Your task to perform on an android device: turn off location Image 0: 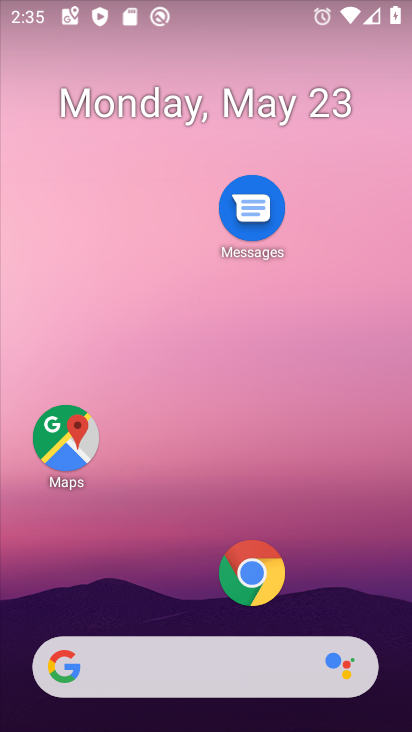
Step 0: drag from (248, 669) to (371, 6)
Your task to perform on an android device: turn off location Image 1: 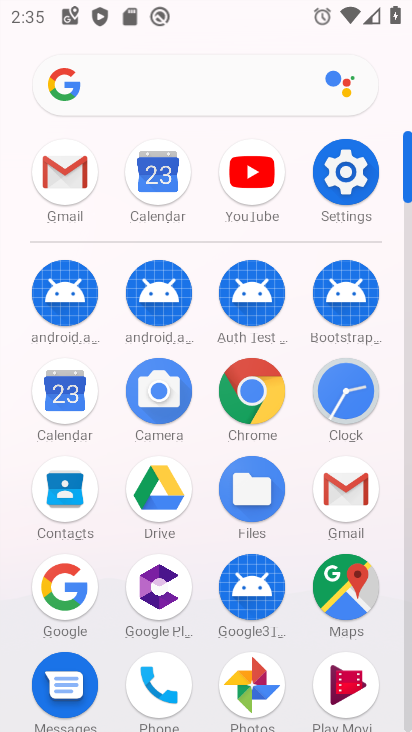
Step 1: click (375, 141)
Your task to perform on an android device: turn off location Image 2: 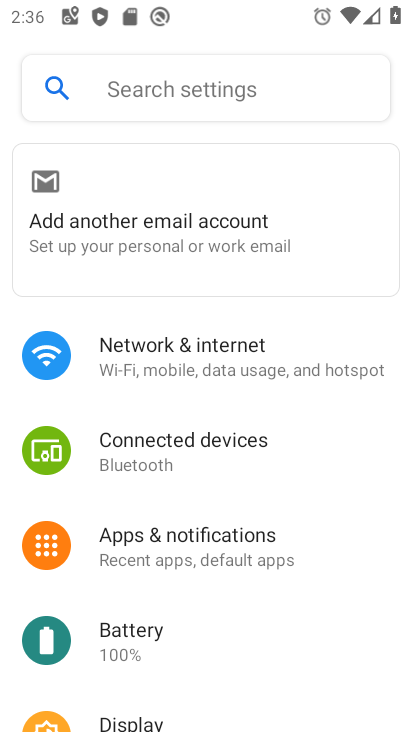
Step 2: drag from (243, 628) to (272, 10)
Your task to perform on an android device: turn off location Image 3: 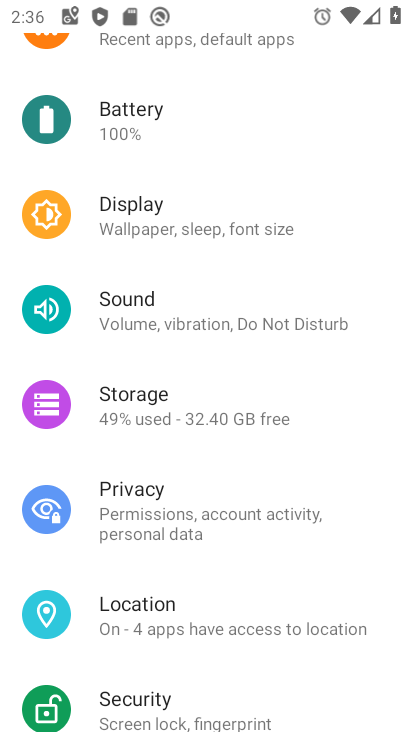
Step 3: drag from (203, 696) to (197, 118)
Your task to perform on an android device: turn off location Image 4: 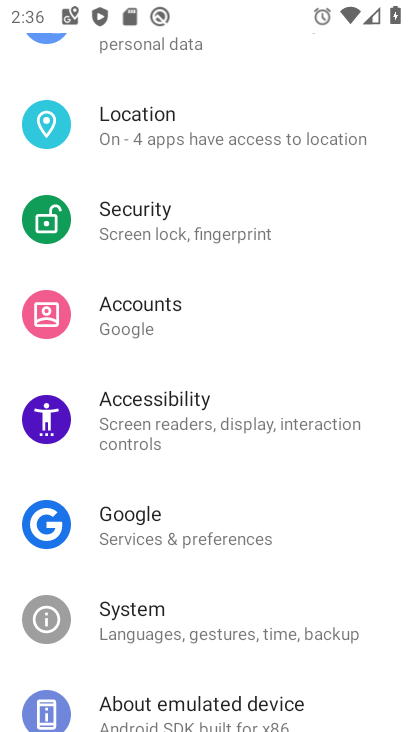
Step 4: drag from (260, 625) to (278, 161)
Your task to perform on an android device: turn off location Image 5: 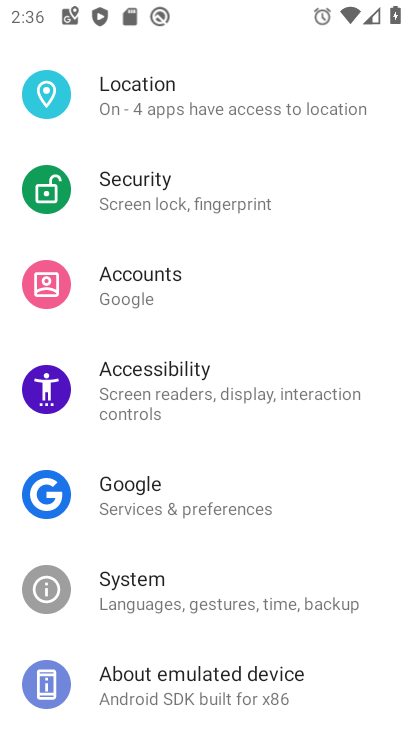
Step 5: click (201, 89)
Your task to perform on an android device: turn off location Image 6: 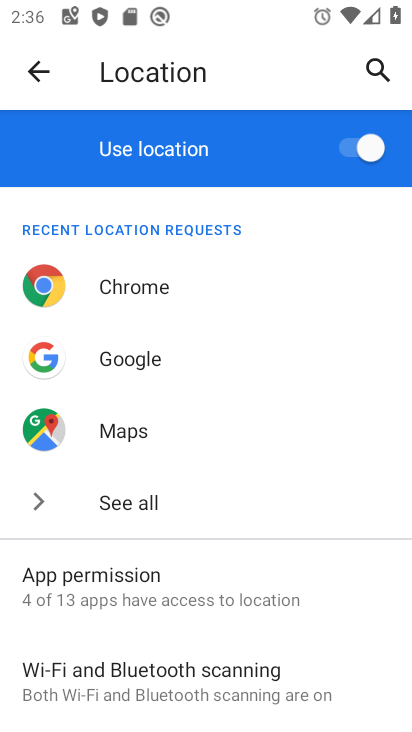
Step 6: click (356, 149)
Your task to perform on an android device: turn off location Image 7: 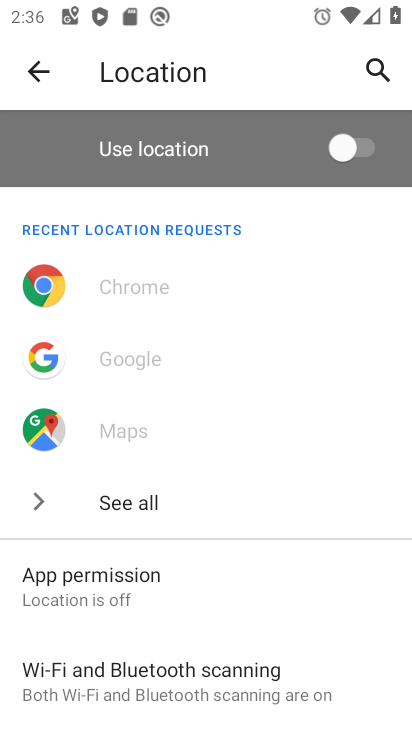
Step 7: task complete